Your task to perform on an android device: manage bookmarks in the chrome app Image 0: 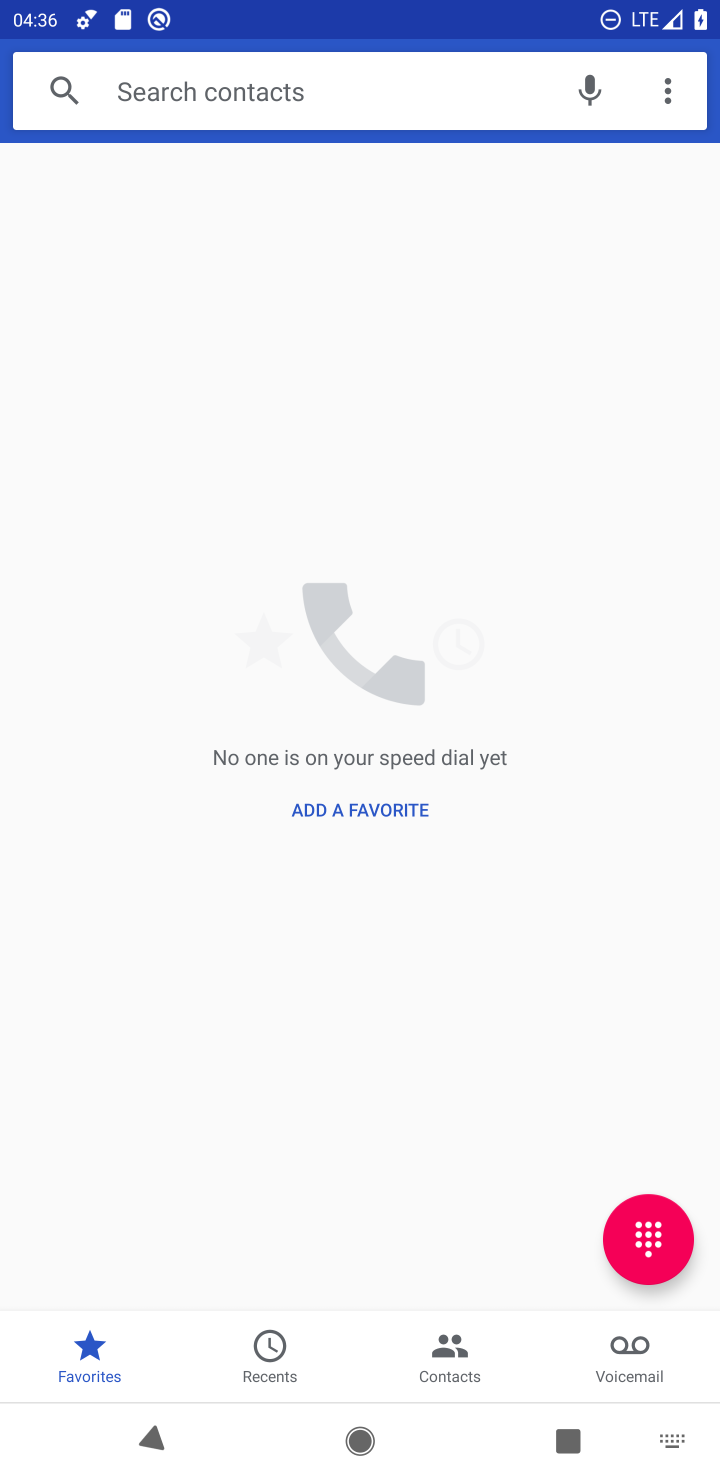
Step 0: press home button
Your task to perform on an android device: manage bookmarks in the chrome app Image 1: 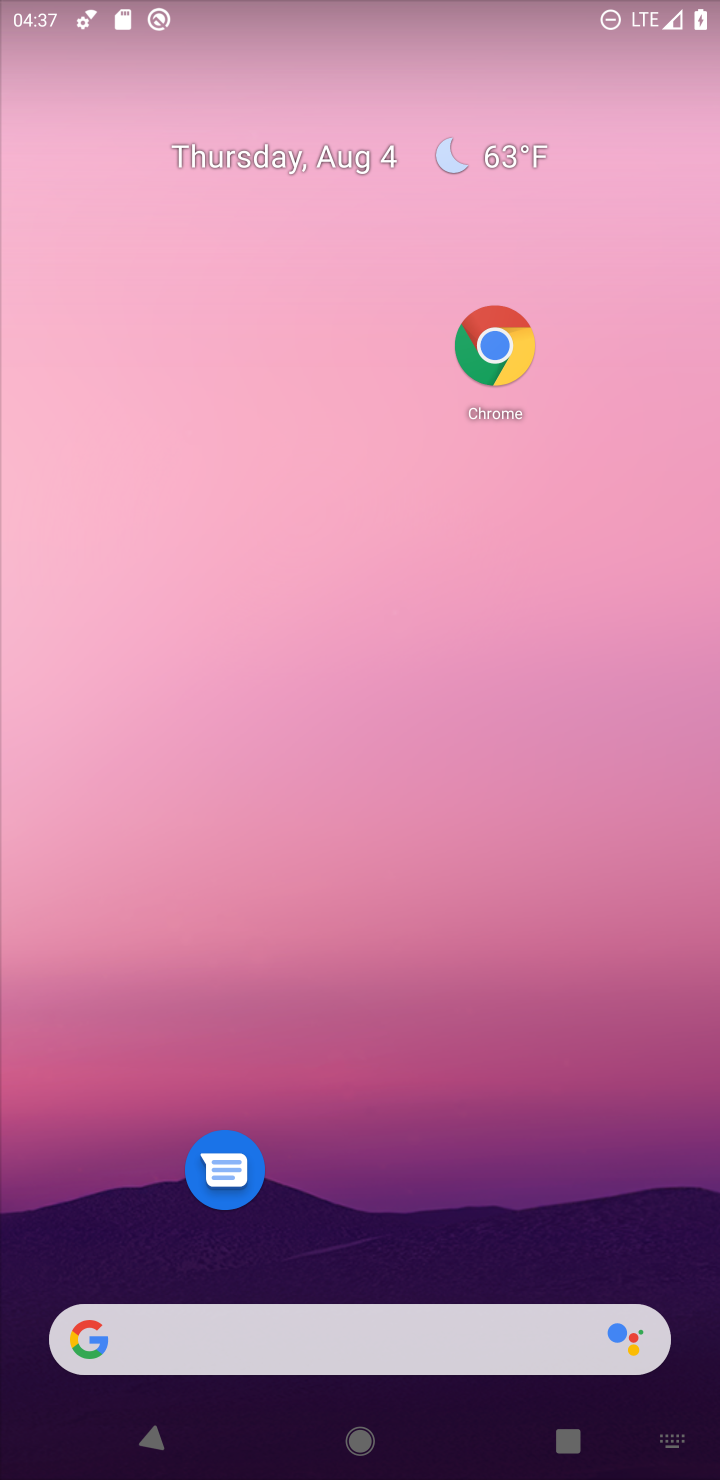
Step 1: drag from (555, 1206) to (207, 29)
Your task to perform on an android device: manage bookmarks in the chrome app Image 2: 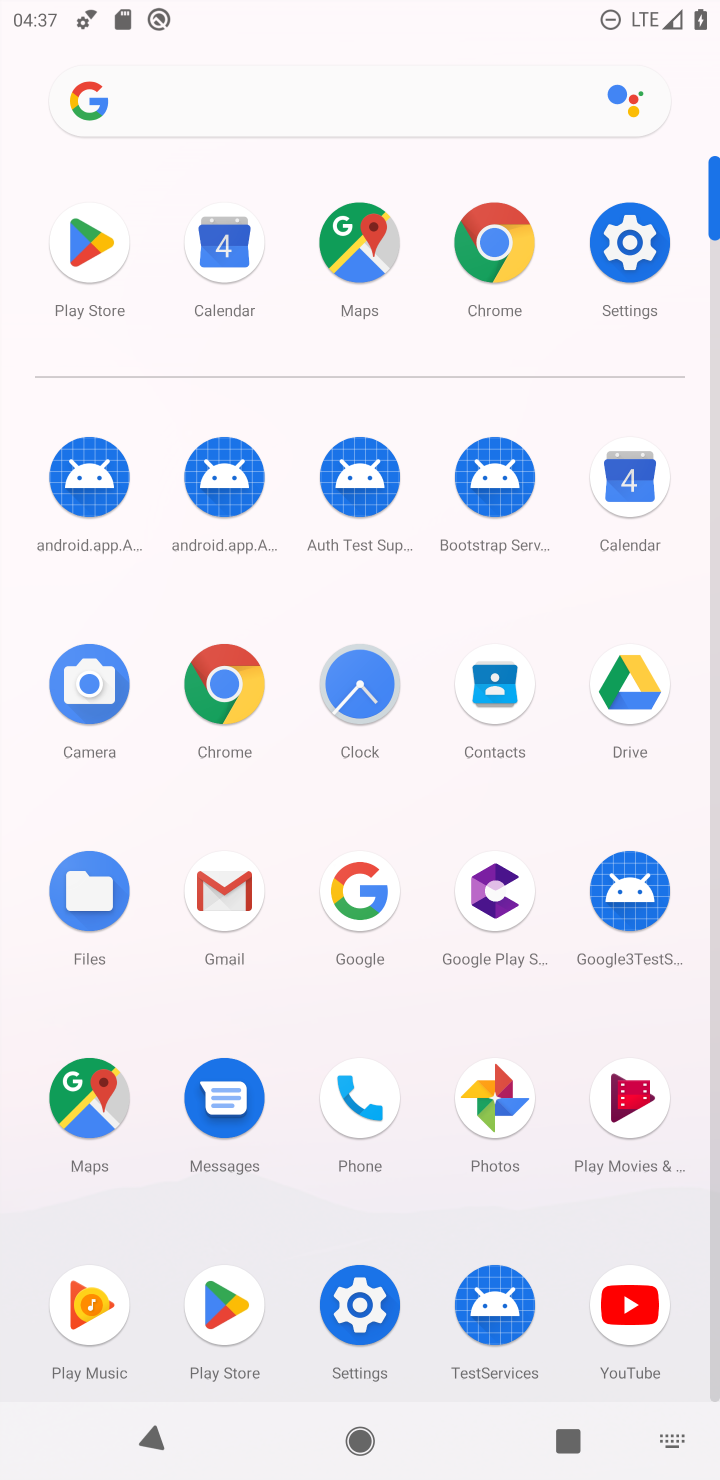
Step 2: click (512, 271)
Your task to perform on an android device: manage bookmarks in the chrome app Image 3: 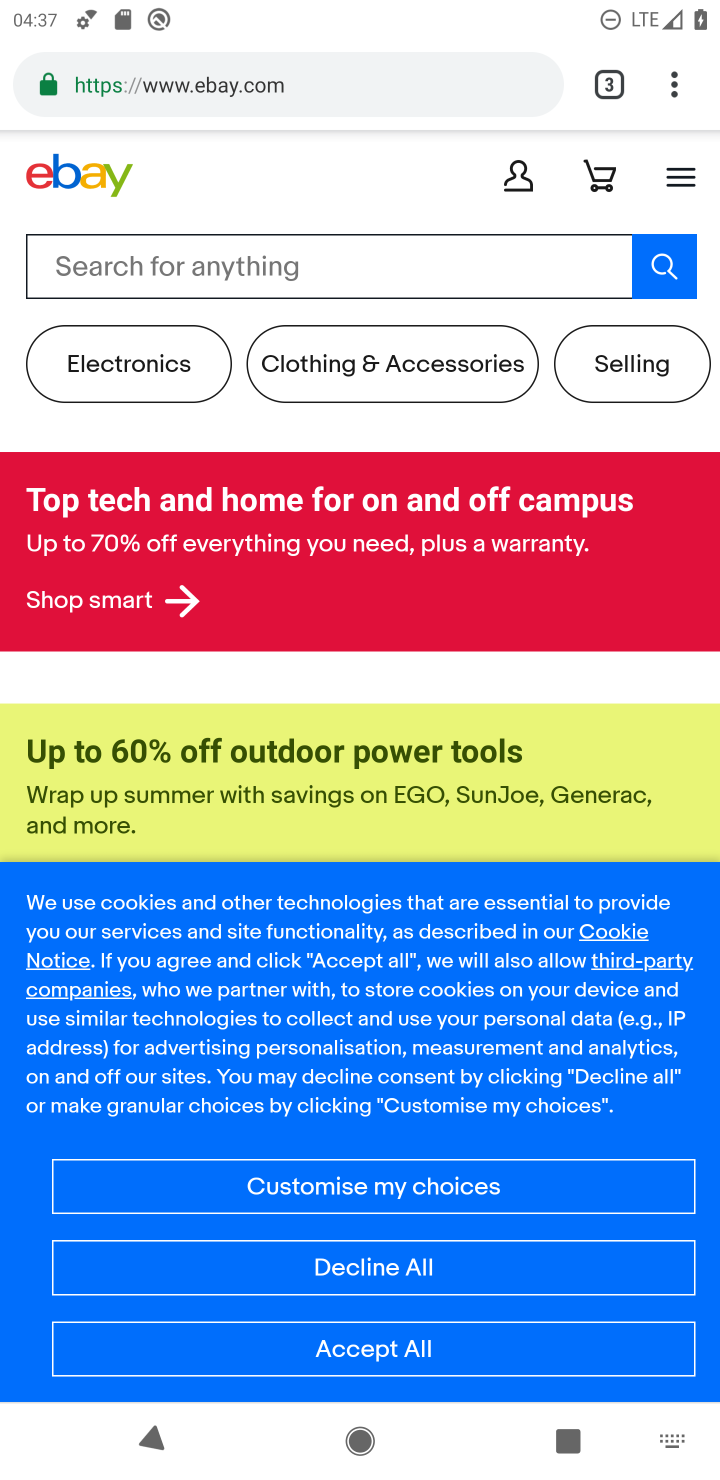
Step 3: click (683, 83)
Your task to perform on an android device: manage bookmarks in the chrome app Image 4: 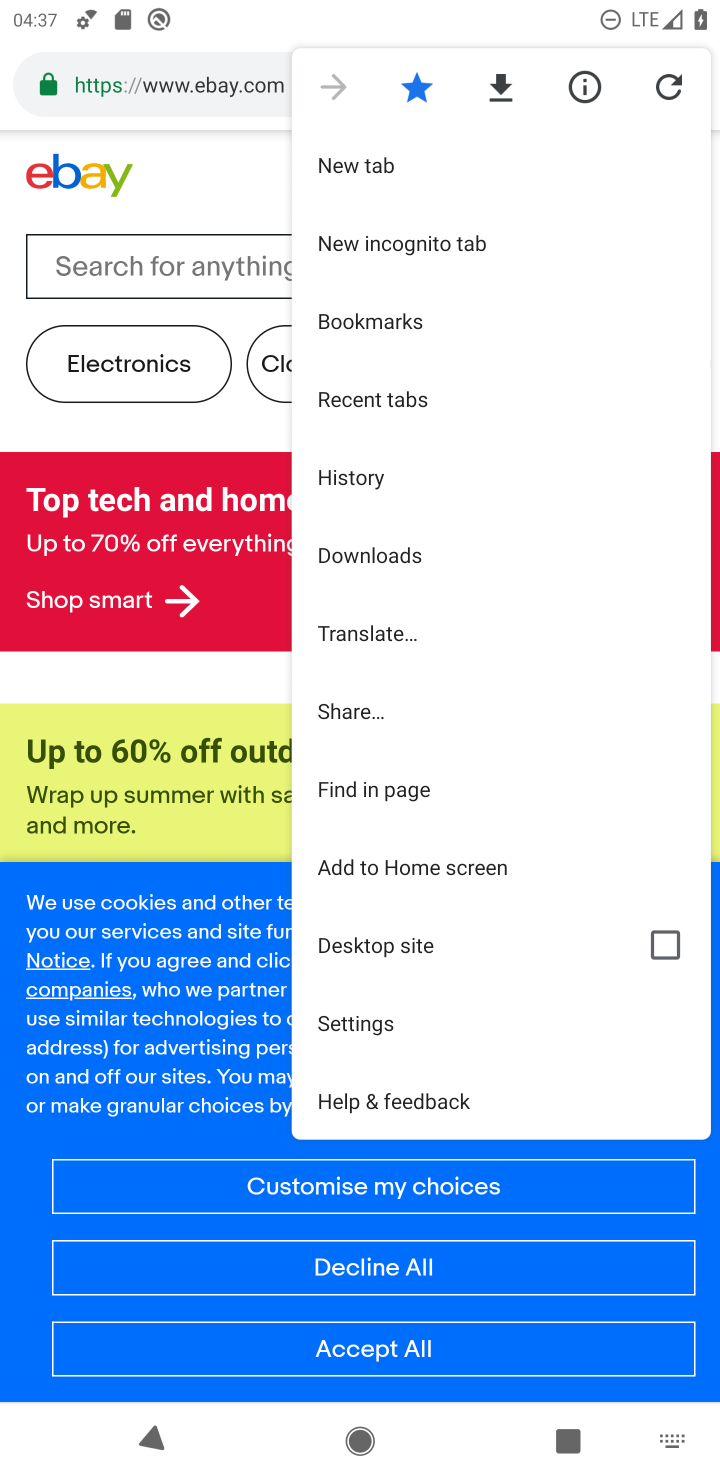
Step 4: click (441, 319)
Your task to perform on an android device: manage bookmarks in the chrome app Image 5: 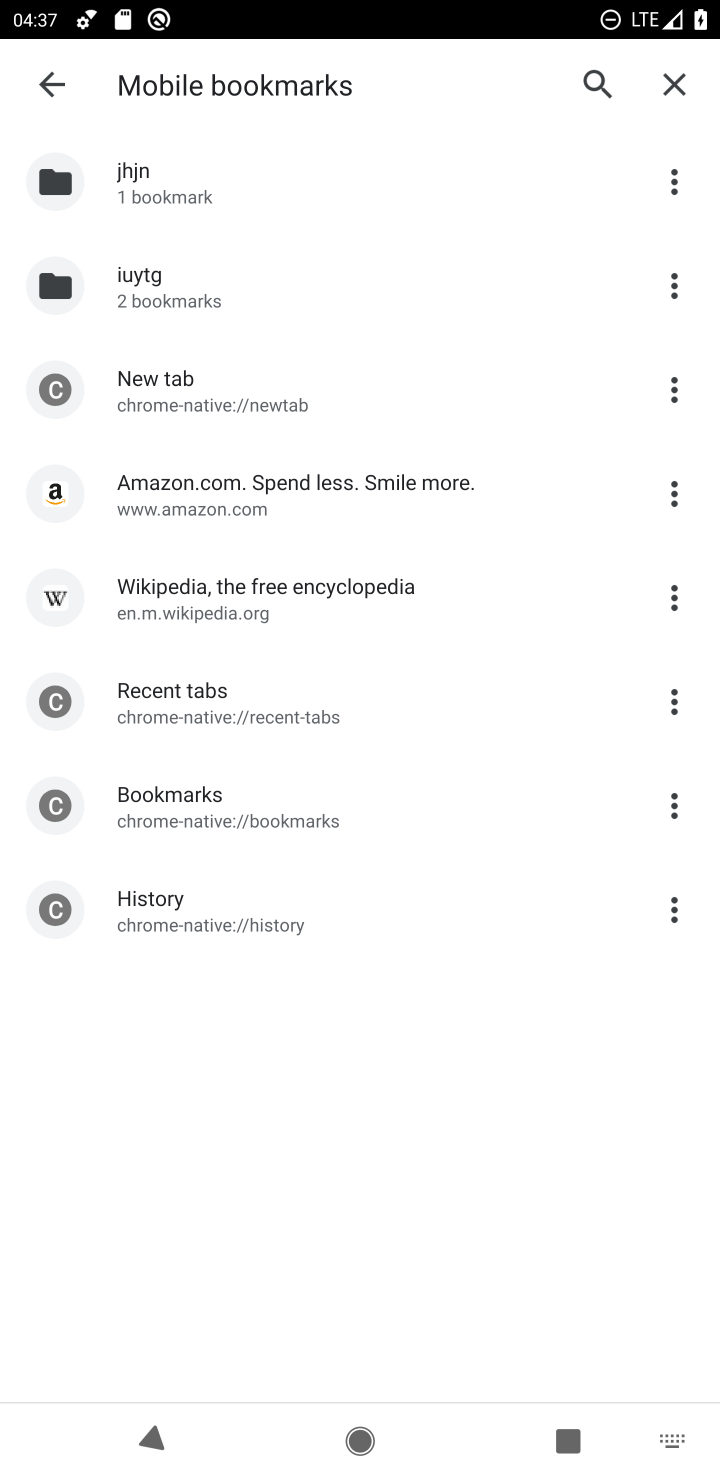
Step 5: click (425, 486)
Your task to perform on an android device: manage bookmarks in the chrome app Image 6: 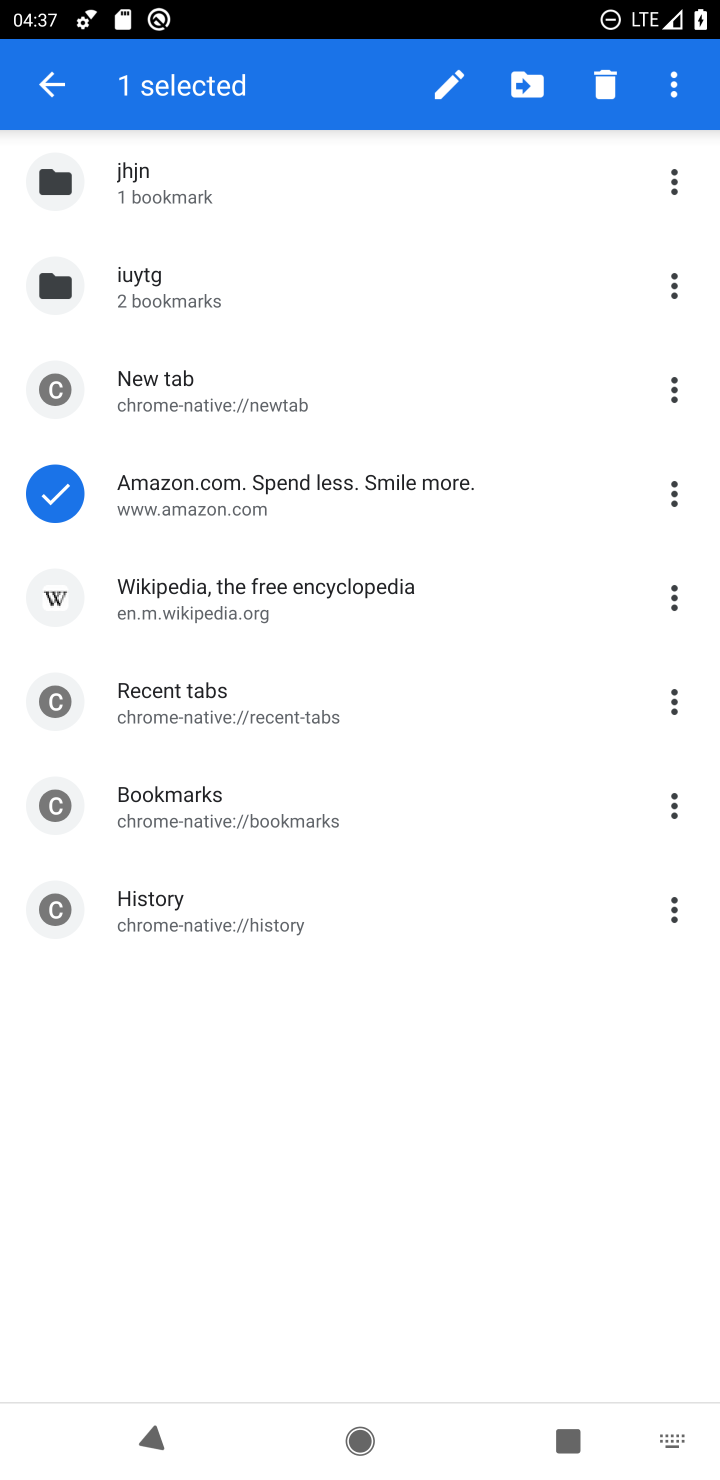
Step 6: click (527, 93)
Your task to perform on an android device: manage bookmarks in the chrome app Image 7: 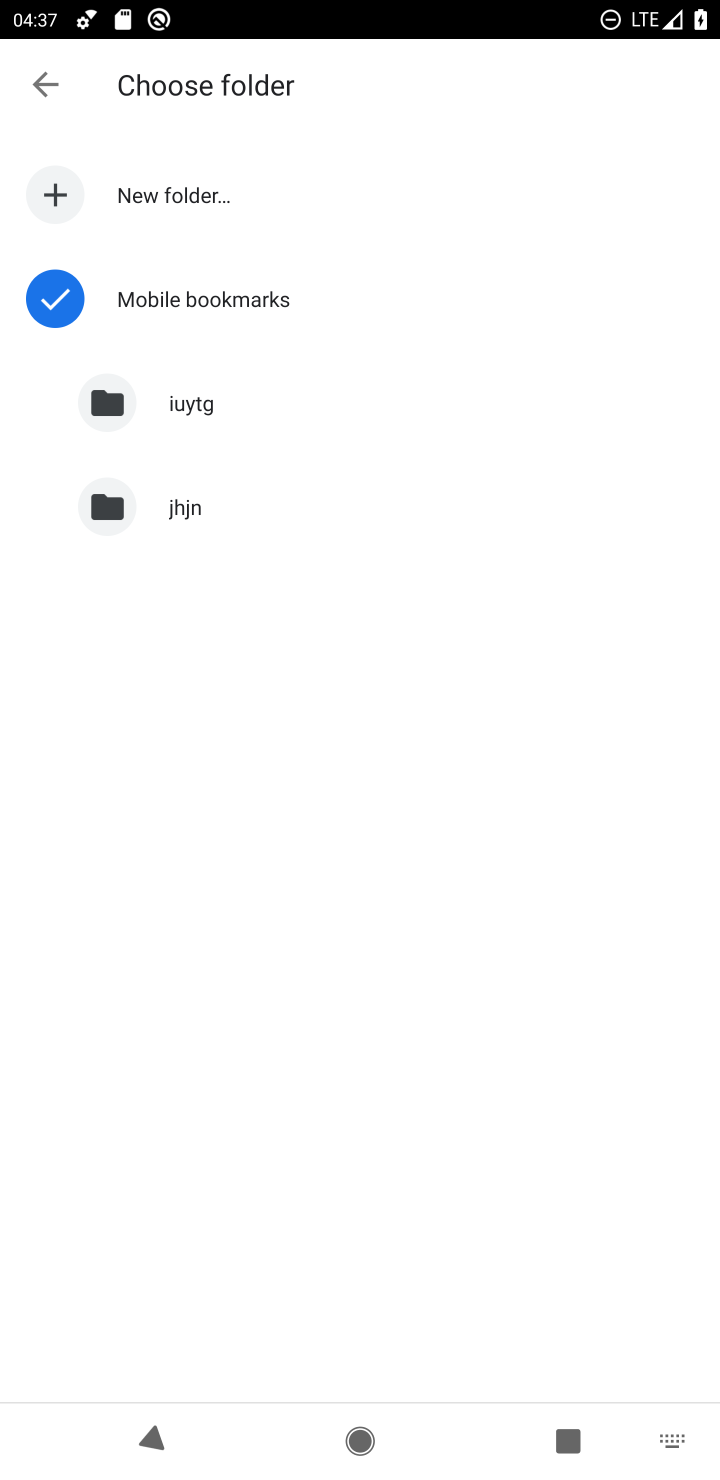
Step 7: click (223, 407)
Your task to perform on an android device: manage bookmarks in the chrome app Image 8: 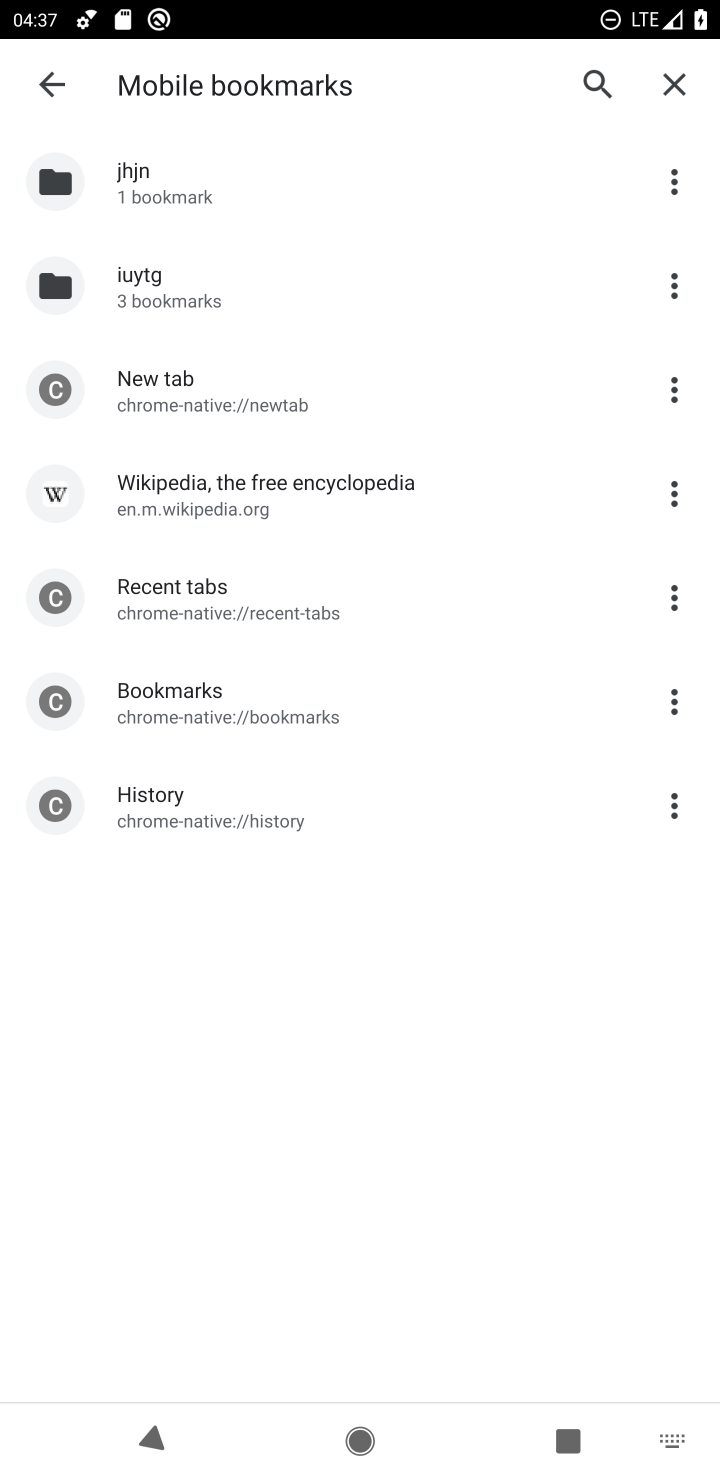
Step 8: task complete